Your task to perform on an android device: change keyboard looks Image 0: 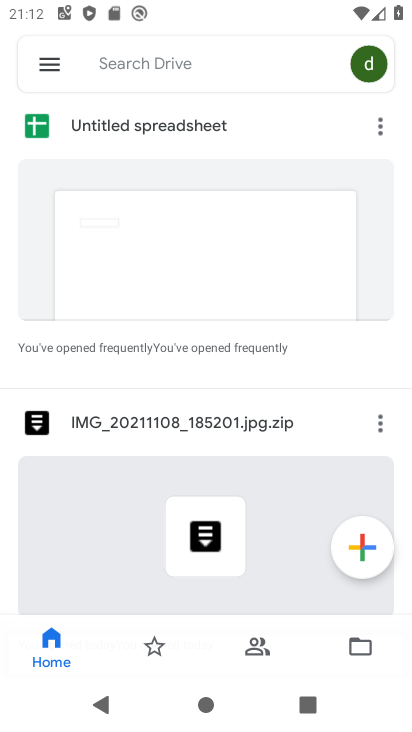
Step 0: press home button
Your task to perform on an android device: change keyboard looks Image 1: 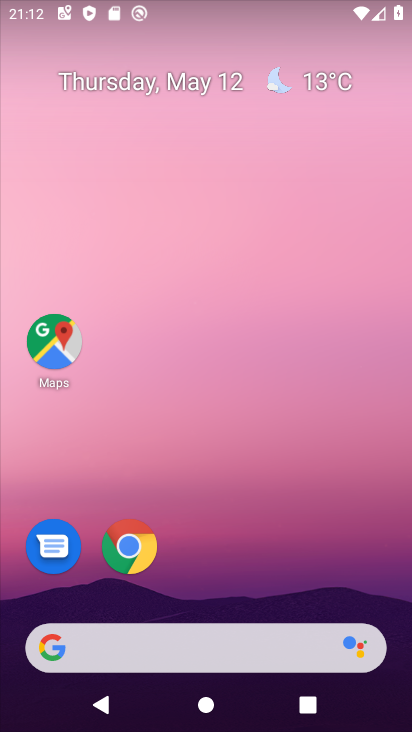
Step 1: drag from (320, 558) to (307, 91)
Your task to perform on an android device: change keyboard looks Image 2: 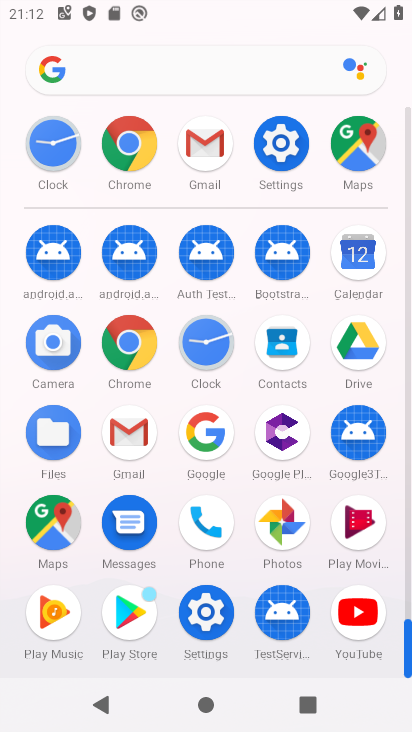
Step 2: click (281, 142)
Your task to perform on an android device: change keyboard looks Image 3: 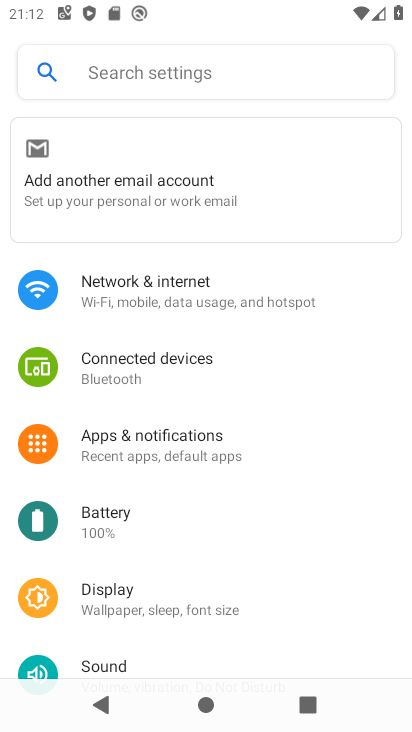
Step 3: drag from (327, 618) to (338, 227)
Your task to perform on an android device: change keyboard looks Image 4: 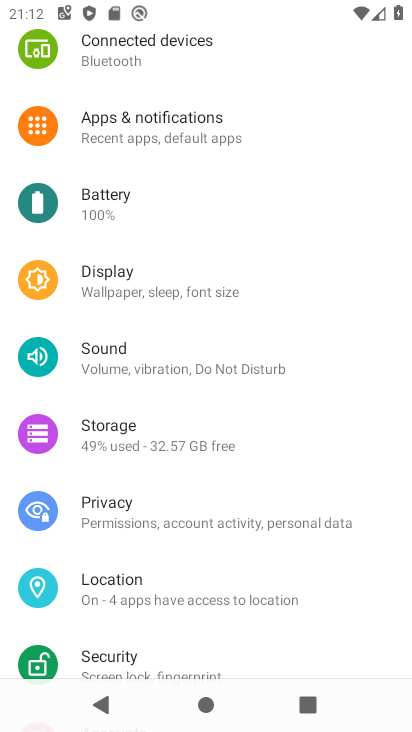
Step 4: drag from (345, 648) to (349, 268)
Your task to perform on an android device: change keyboard looks Image 5: 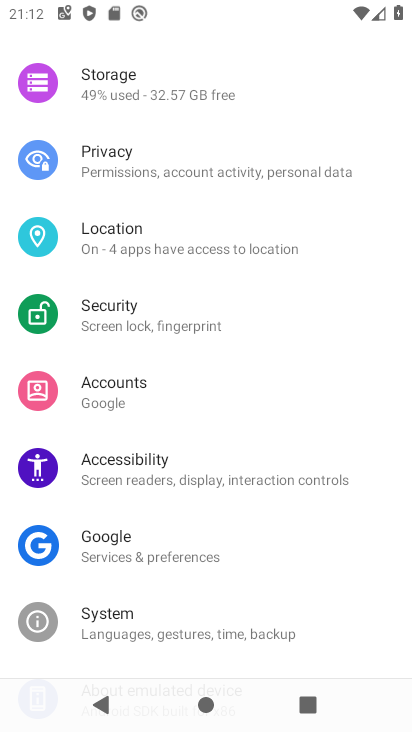
Step 5: click (181, 633)
Your task to perform on an android device: change keyboard looks Image 6: 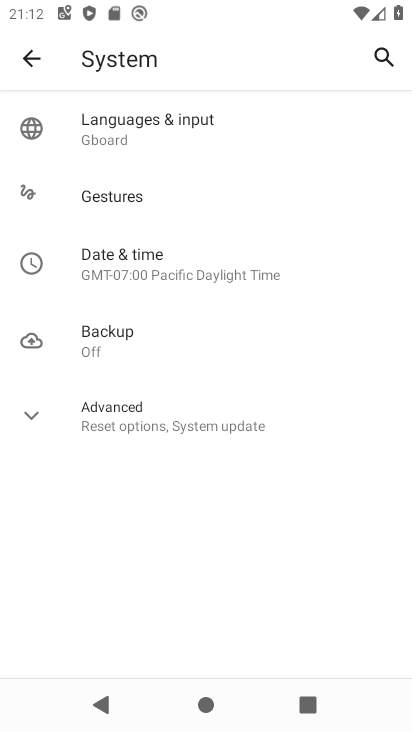
Step 6: click (141, 122)
Your task to perform on an android device: change keyboard looks Image 7: 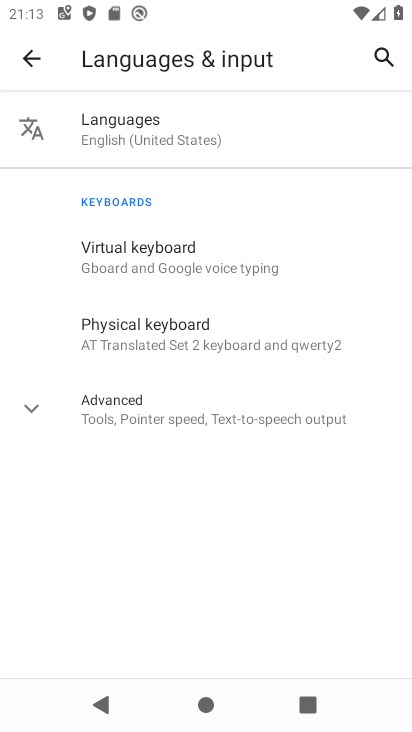
Step 7: click (186, 259)
Your task to perform on an android device: change keyboard looks Image 8: 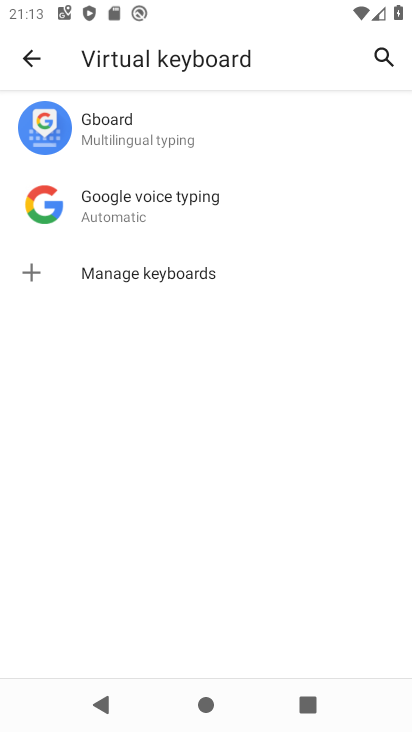
Step 8: click (165, 134)
Your task to perform on an android device: change keyboard looks Image 9: 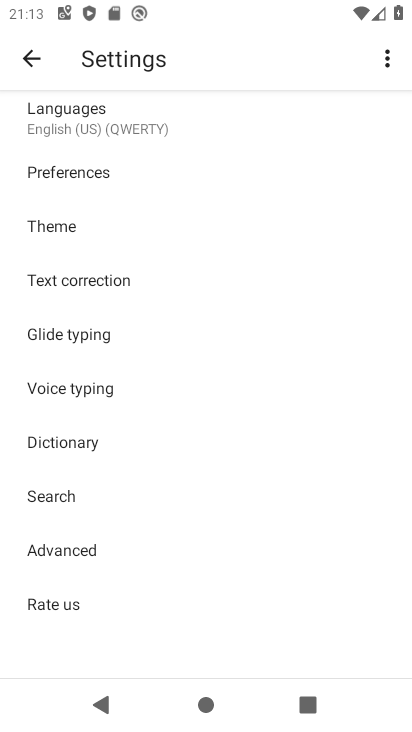
Step 9: click (65, 227)
Your task to perform on an android device: change keyboard looks Image 10: 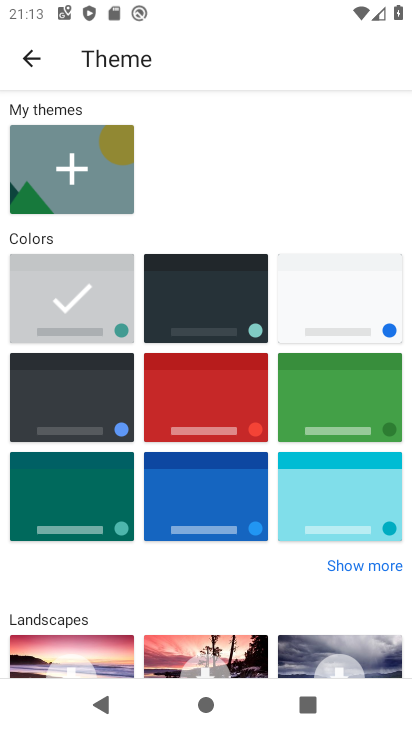
Step 10: click (209, 306)
Your task to perform on an android device: change keyboard looks Image 11: 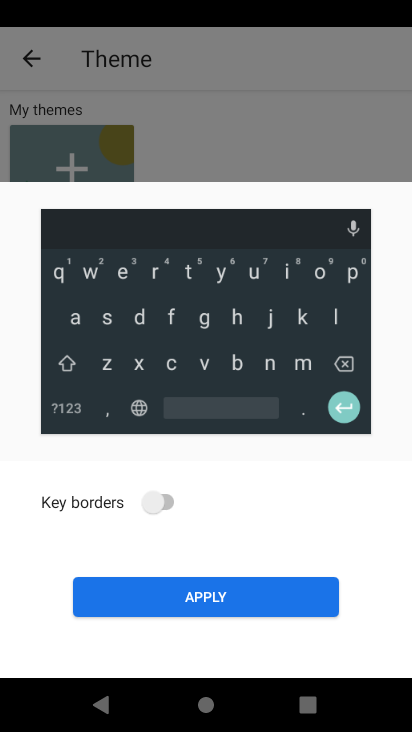
Step 11: click (166, 498)
Your task to perform on an android device: change keyboard looks Image 12: 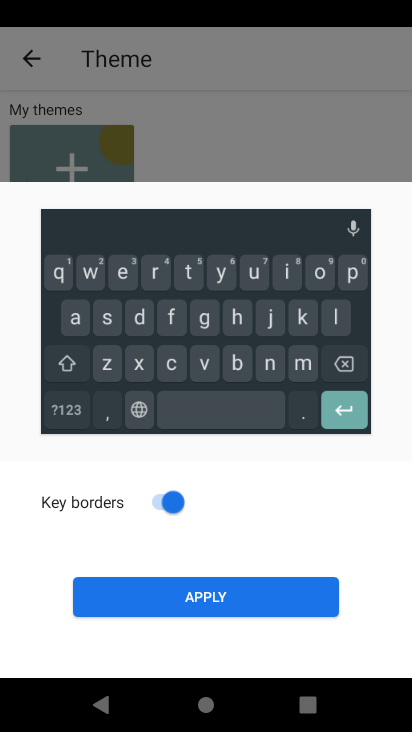
Step 12: click (267, 609)
Your task to perform on an android device: change keyboard looks Image 13: 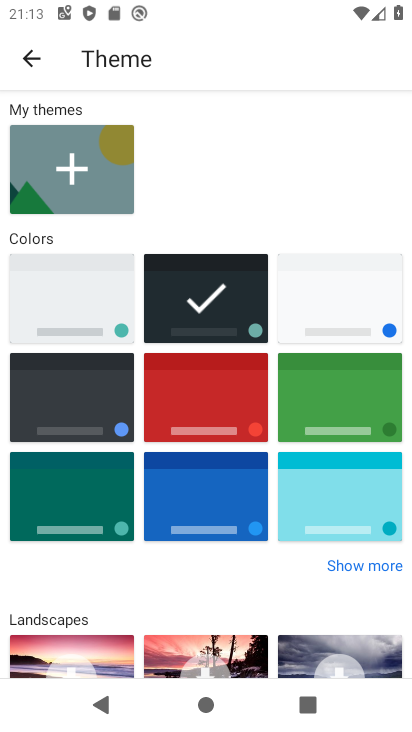
Step 13: task complete